Your task to perform on an android device: Open sound settings Image 0: 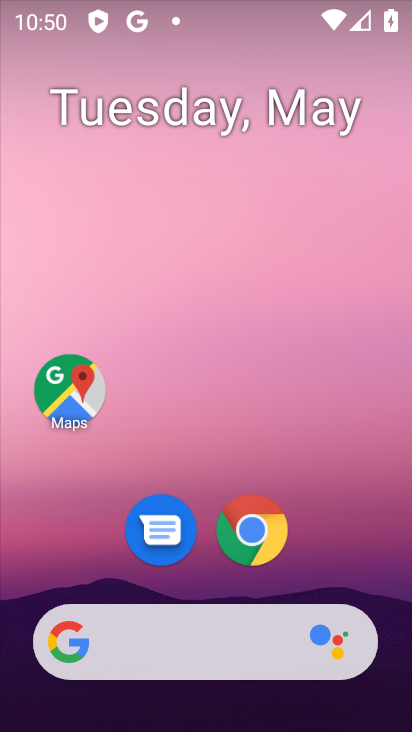
Step 0: drag from (354, 517) to (348, 132)
Your task to perform on an android device: Open sound settings Image 1: 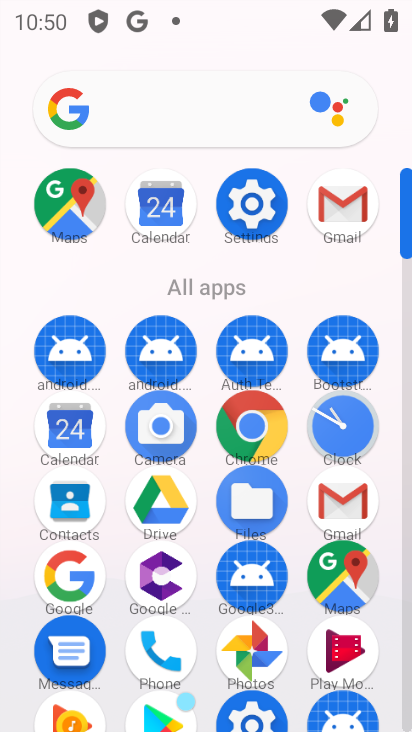
Step 1: click (259, 206)
Your task to perform on an android device: Open sound settings Image 2: 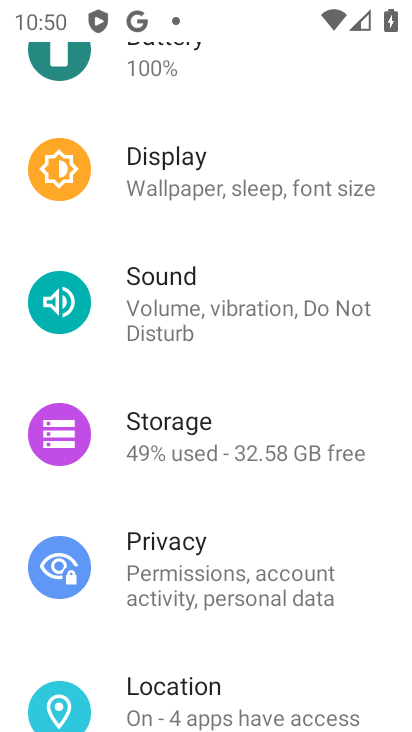
Step 2: click (255, 306)
Your task to perform on an android device: Open sound settings Image 3: 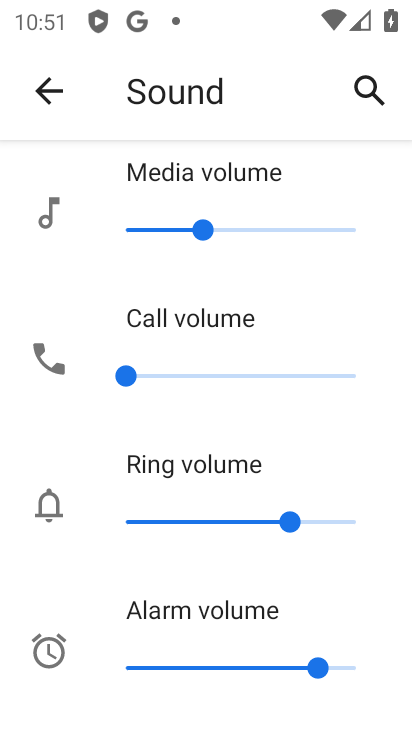
Step 3: task complete